Your task to perform on an android device: Go to Yahoo.com Image 0: 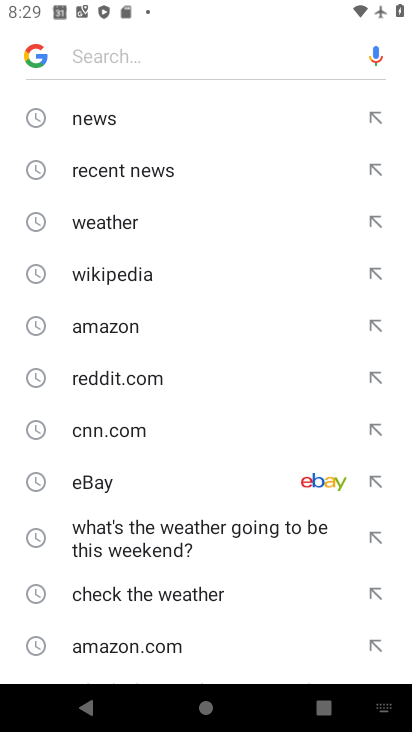
Step 0: press home button
Your task to perform on an android device: Go to Yahoo.com Image 1: 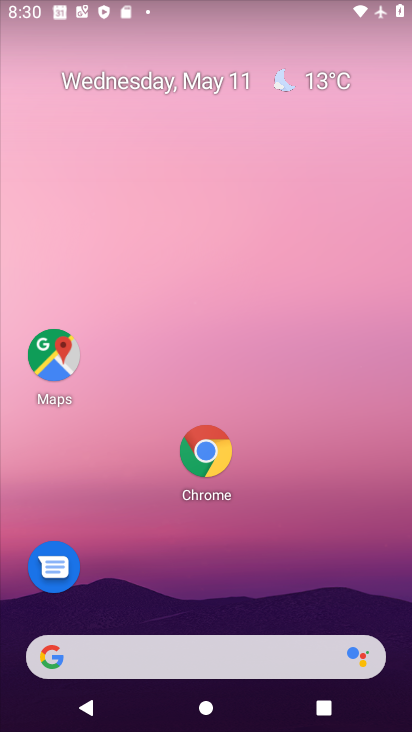
Step 1: click (189, 457)
Your task to perform on an android device: Go to Yahoo.com Image 2: 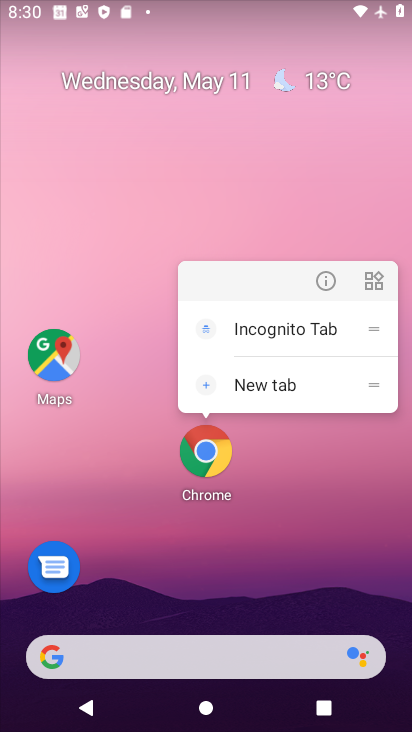
Step 2: click (210, 467)
Your task to perform on an android device: Go to Yahoo.com Image 3: 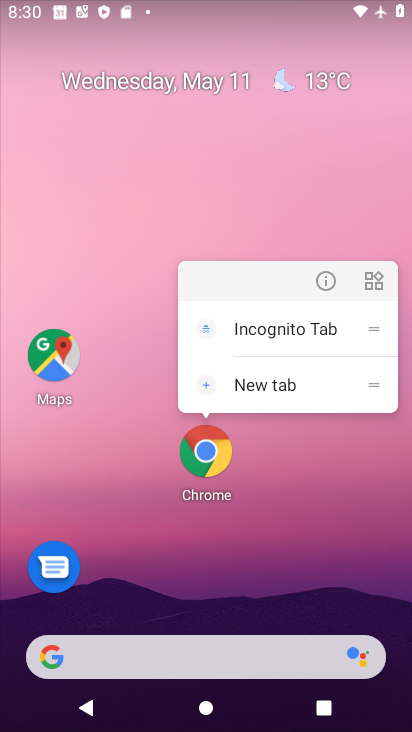
Step 3: click (205, 449)
Your task to perform on an android device: Go to Yahoo.com Image 4: 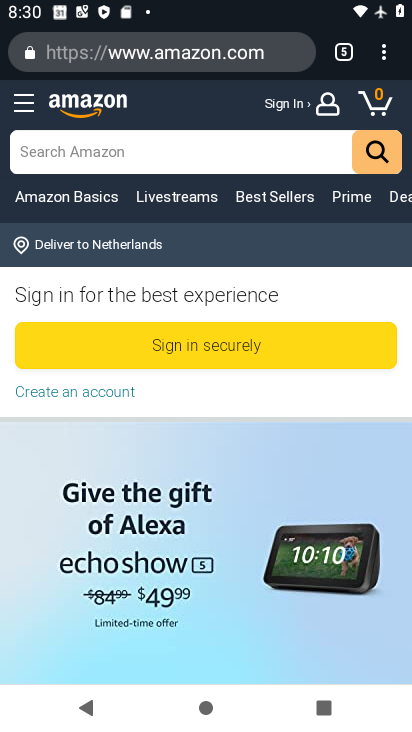
Step 4: drag from (386, 56) to (313, 110)
Your task to perform on an android device: Go to Yahoo.com Image 5: 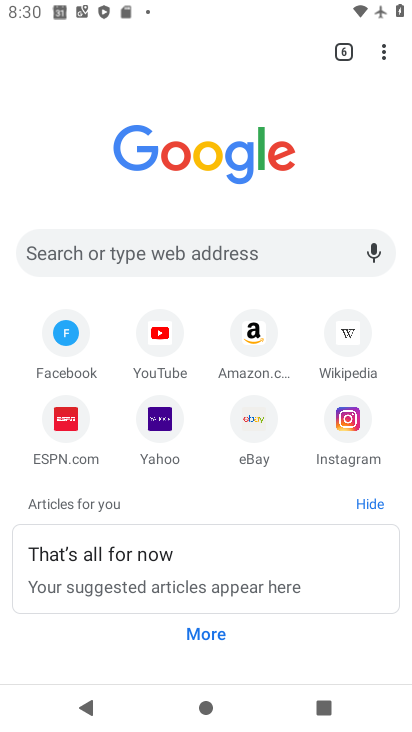
Step 5: click (160, 422)
Your task to perform on an android device: Go to Yahoo.com Image 6: 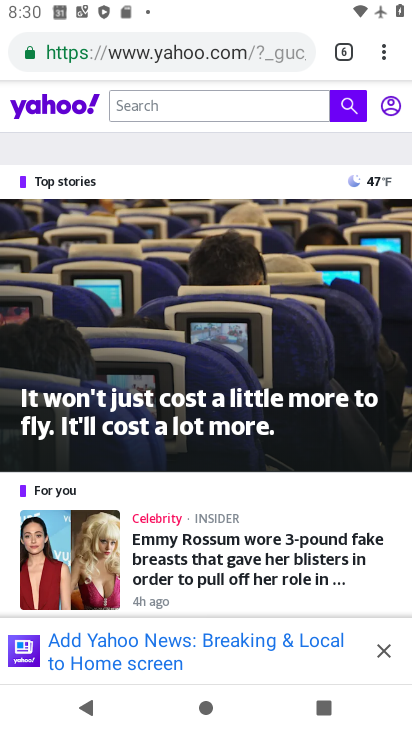
Step 6: task complete